Your task to perform on an android device: Go to location settings Image 0: 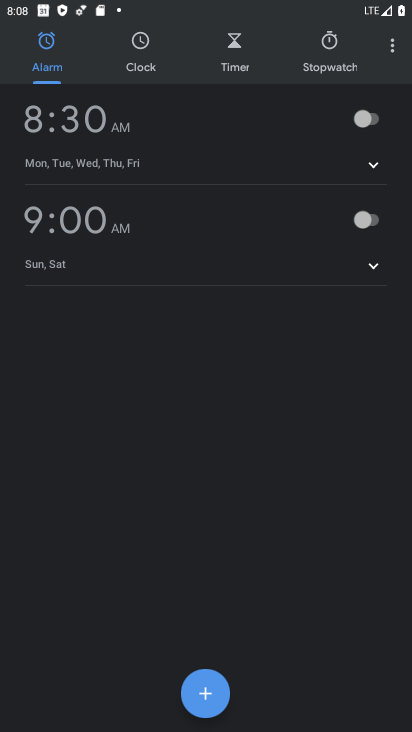
Step 0: press home button
Your task to perform on an android device: Go to location settings Image 1: 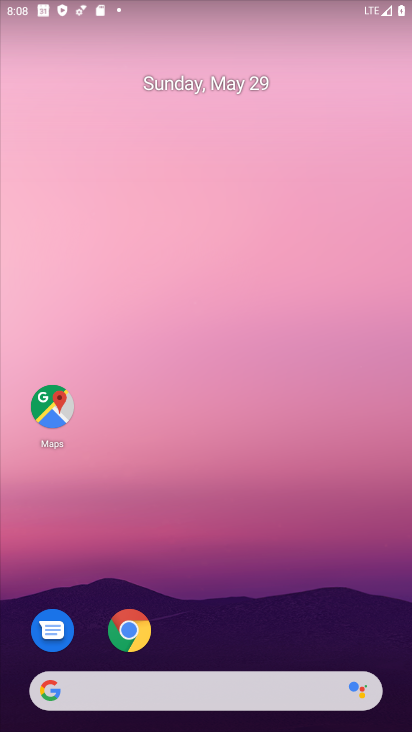
Step 1: drag from (253, 659) to (204, 22)
Your task to perform on an android device: Go to location settings Image 2: 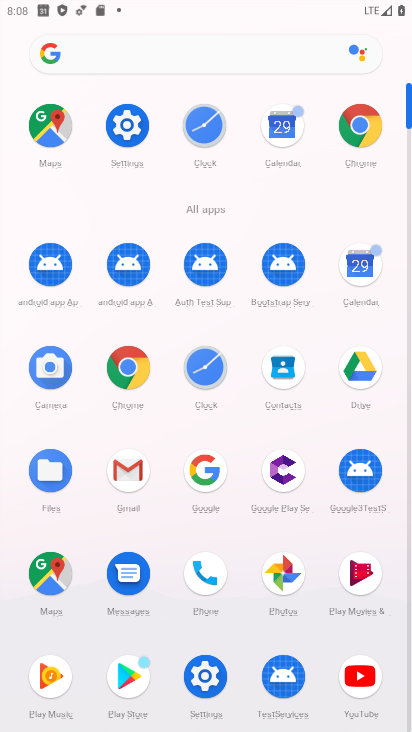
Step 2: click (134, 119)
Your task to perform on an android device: Go to location settings Image 3: 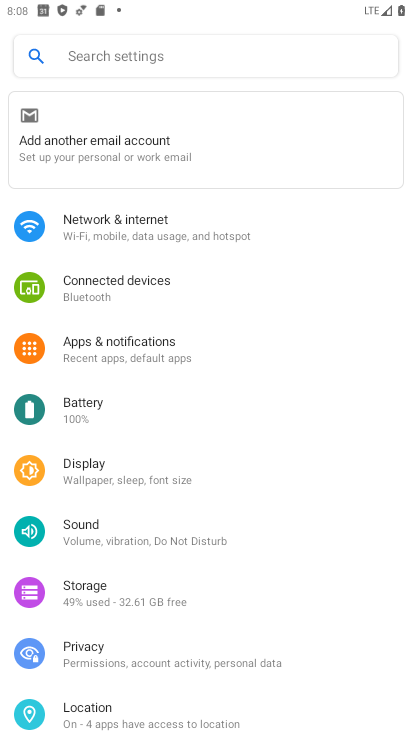
Step 3: click (132, 720)
Your task to perform on an android device: Go to location settings Image 4: 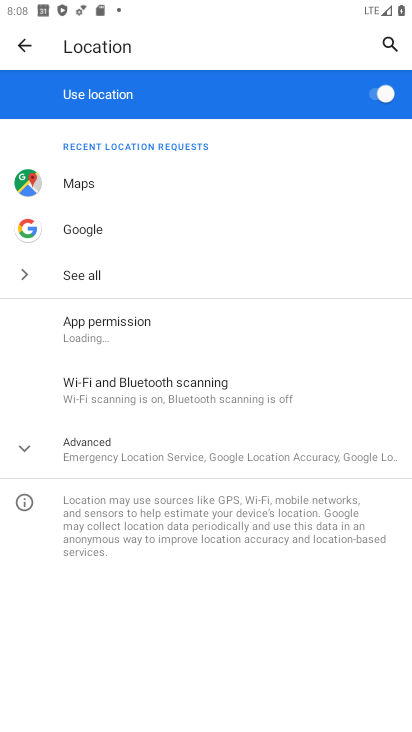
Step 4: click (111, 473)
Your task to perform on an android device: Go to location settings Image 5: 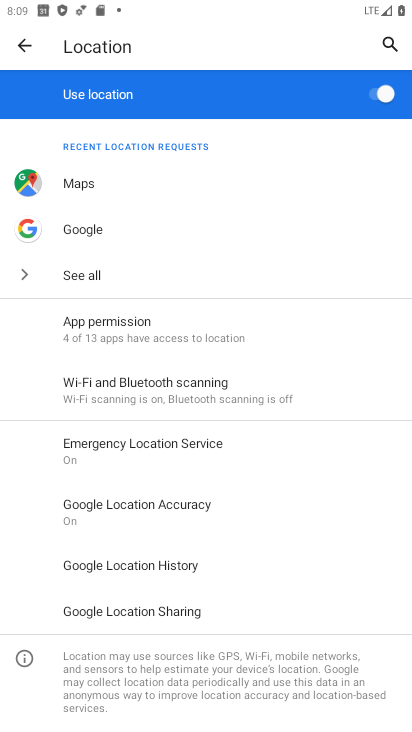
Step 5: task complete